Your task to perform on an android device: stop showing notifications on the lock screen Image 0: 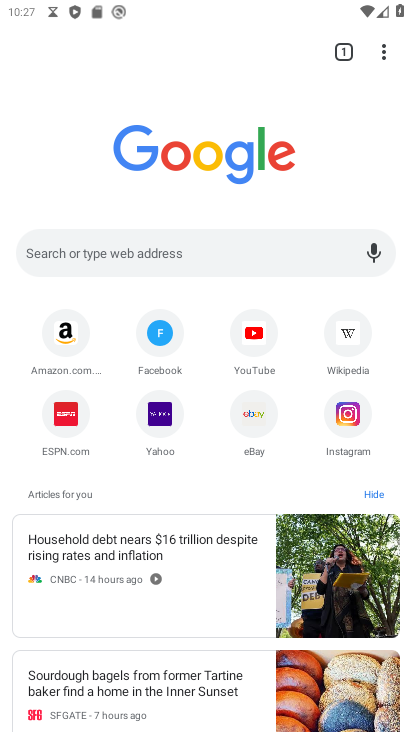
Step 0: press back button
Your task to perform on an android device: stop showing notifications on the lock screen Image 1: 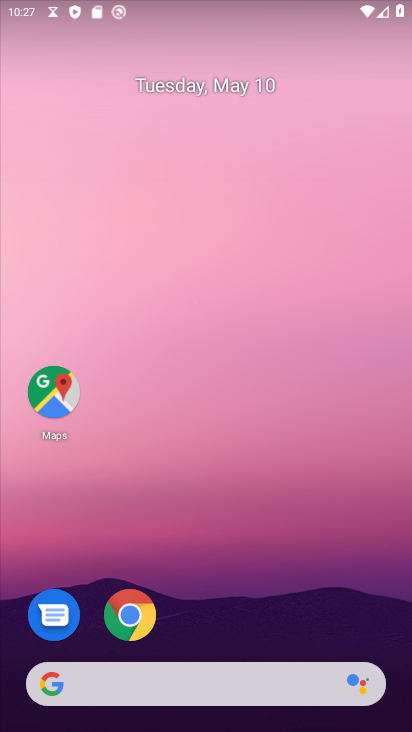
Step 1: drag from (240, 577) to (250, 56)
Your task to perform on an android device: stop showing notifications on the lock screen Image 2: 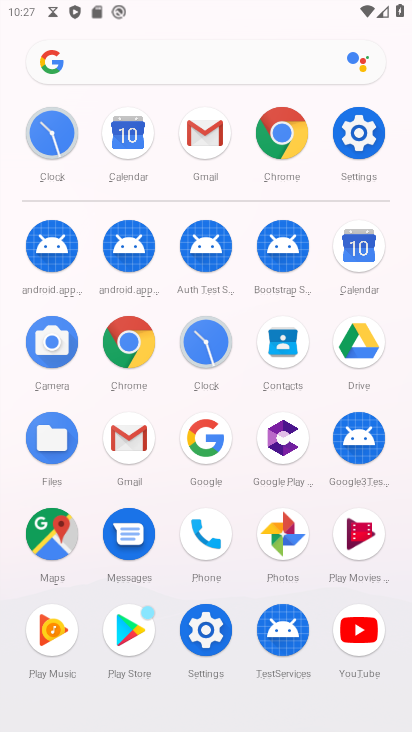
Step 2: click (207, 626)
Your task to perform on an android device: stop showing notifications on the lock screen Image 3: 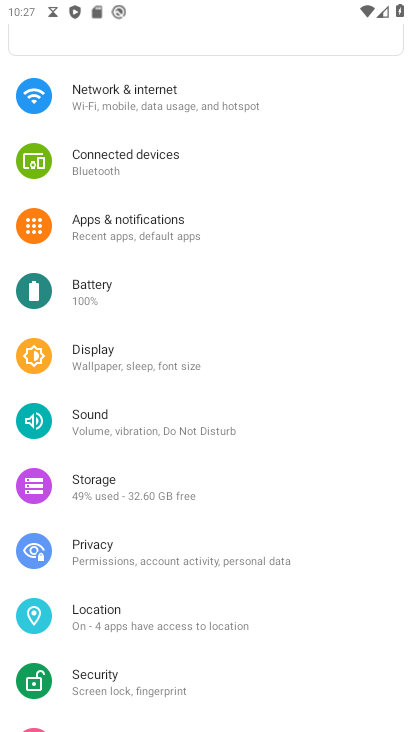
Step 3: click (139, 231)
Your task to perform on an android device: stop showing notifications on the lock screen Image 4: 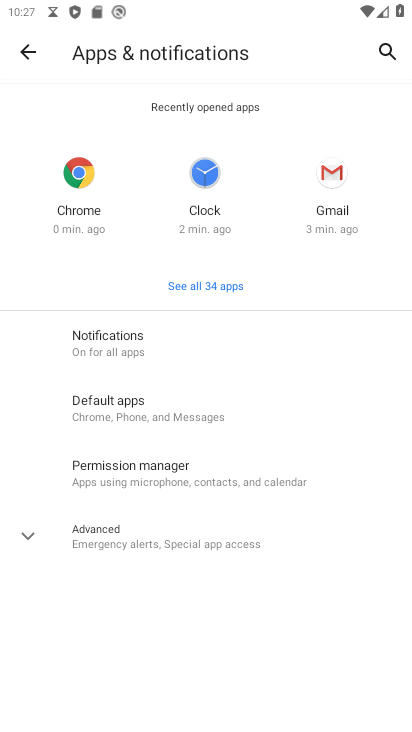
Step 4: click (118, 344)
Your task to perform on an android device: stop showing notifications on the lock screen Image 5: 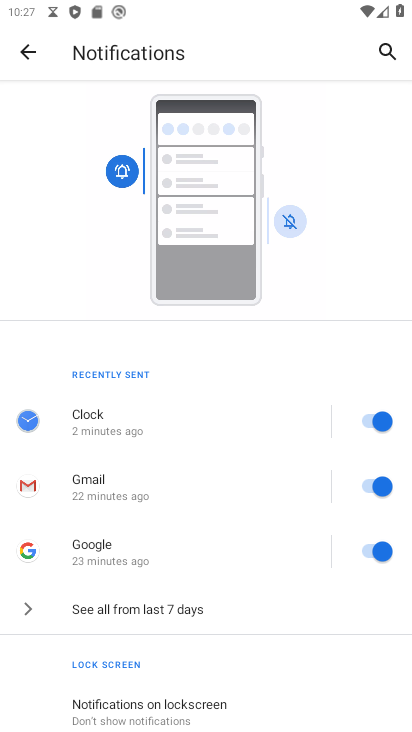
Step 5: task complete